Your task to perform on an android device: Go to Android settings Image 0: 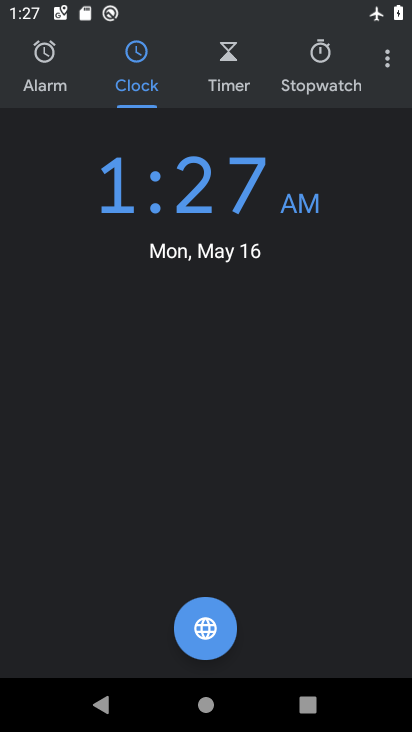
Step 0: press home button
Your task to perform on an android device: Go to Android settings Image 1: 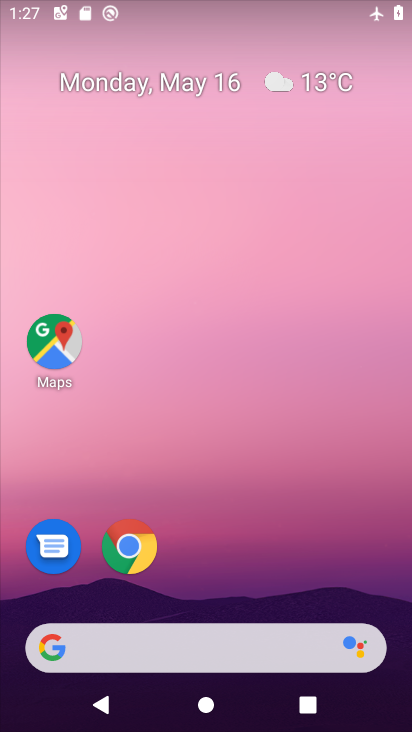
Step 1: drag from (233, 722) to (235, 105)
Your task to perform on an android device: Go to Android settings Image 2: 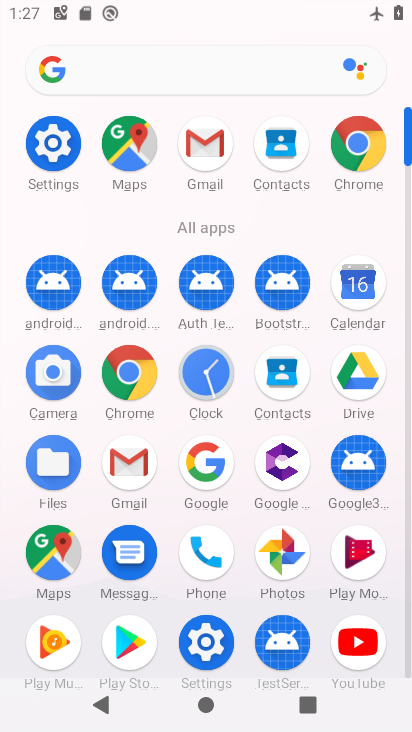
Step 2: click (206, 650)
Your task to perform on an android device: Go to Android settings Image 3: 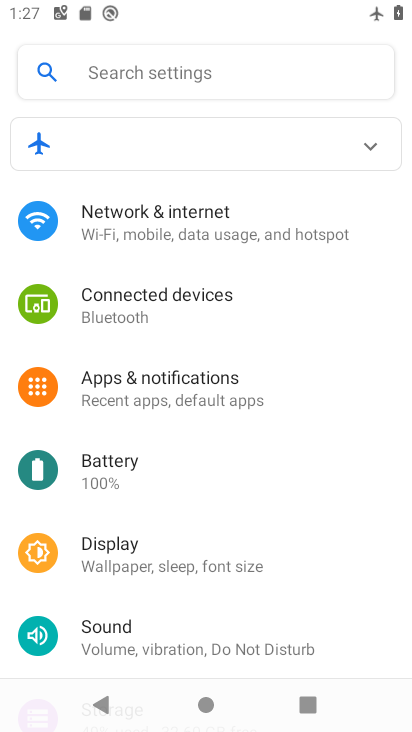
Step 3: task complete